Your task to perform on an android device: delete a single message in the gmail app Image 0: 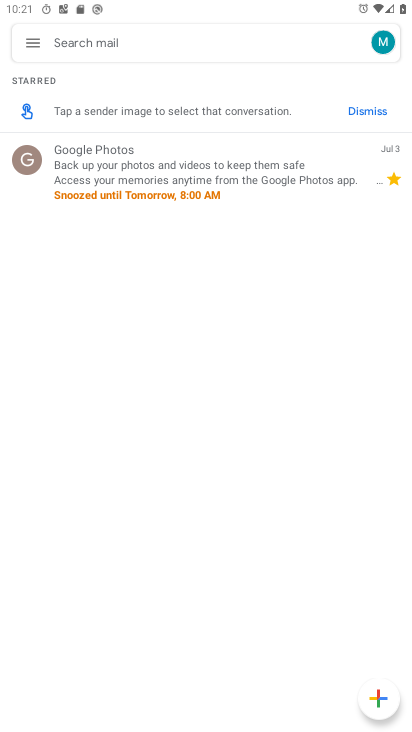
Step 0: press home button
Your task to perform on an android device: delete a single message in the gmail app Image 1: 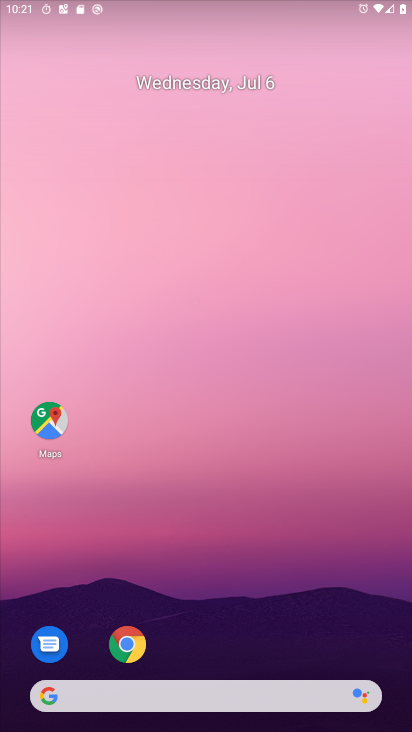
Step 1: drag from (240, 627) to (226, 169)
Your task to perform on an android device: delete a single message in the gmail app Image 2: 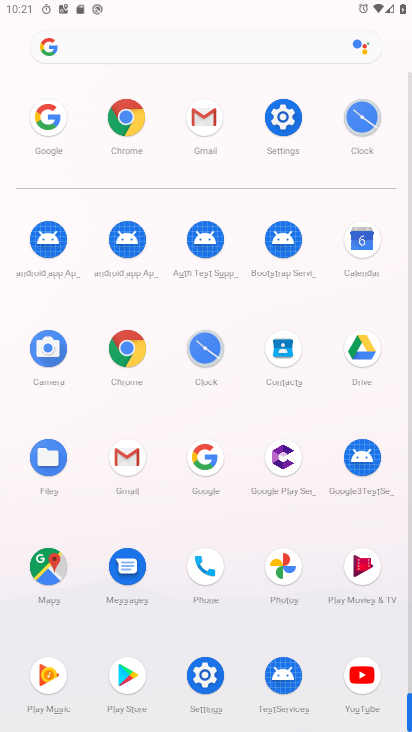
Step 2: click (207, 144)
Your task to perform on an android device: delete a single message in the gmail app Image 3: 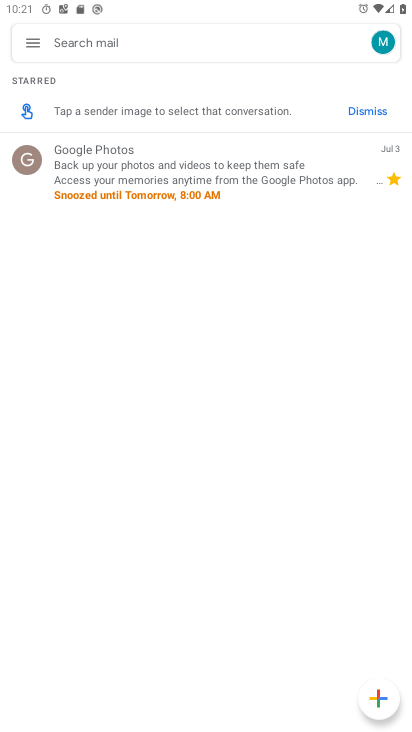
Step 3: click (35, 44)
Your task to perform on an android device: delete a single message in the gmail app Image 4: 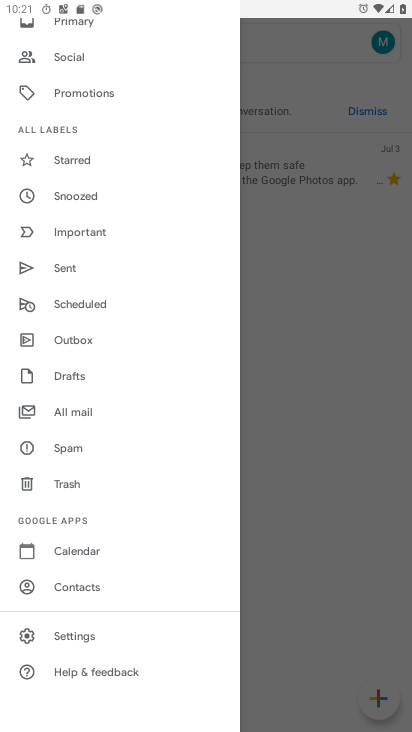
Step 4: drag from (96, 159) to (87, 306)
Your task to perform on an android device: delete a single message in the gmail app Image 5: 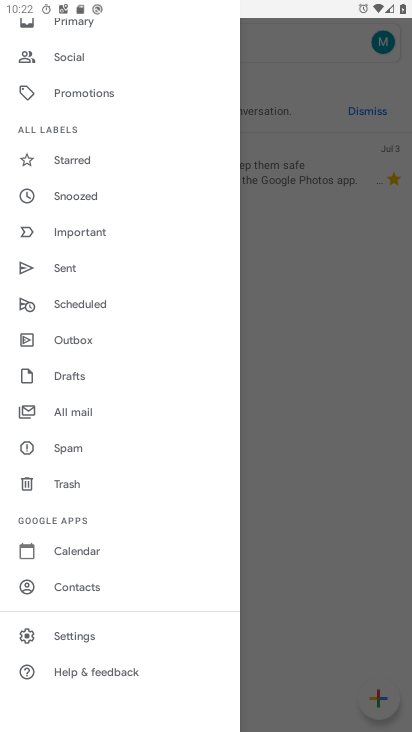
Step 5: drag from (118, 254) to (110, 466)
Your task to perform on an android device: delete a single message in the gmail app Image 6: 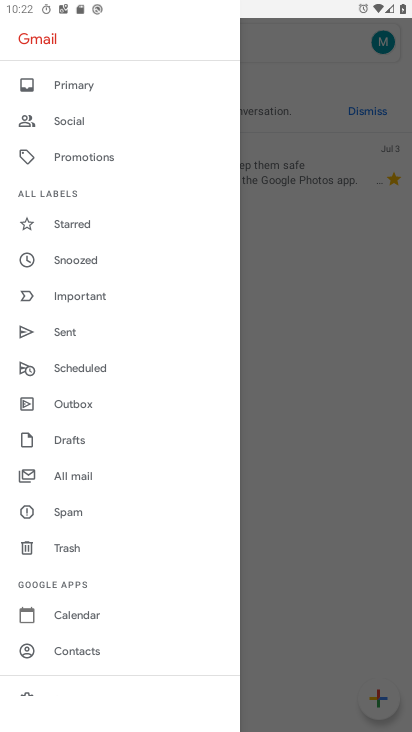
Step 6: drag from (97, 323) to (93, 472)
Your task to perform on an android device: delete a single message in the gmail app Image 7: 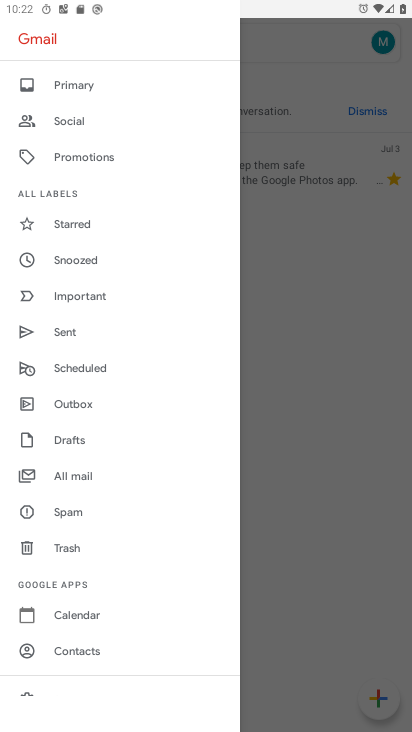
Step 7: click (67, 480)
Your task to perform on an android device: delete a single message in the gmail app Image 8: 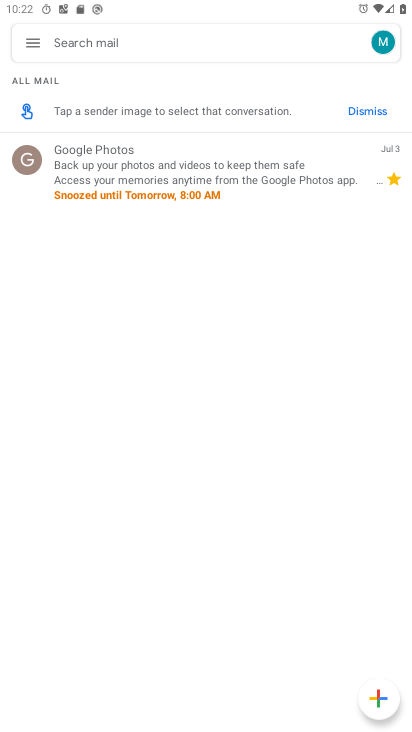
Step 8: click (196, 173)
Your task to perform on an android device: delete a single message in the gmail app Image 9: 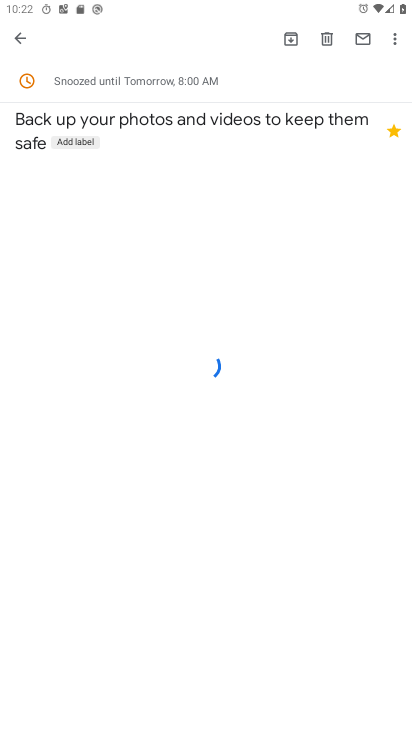
Step 9: click (324, 45)
Your task to perform on an android device: delete a single message in the gmail app Image 10: 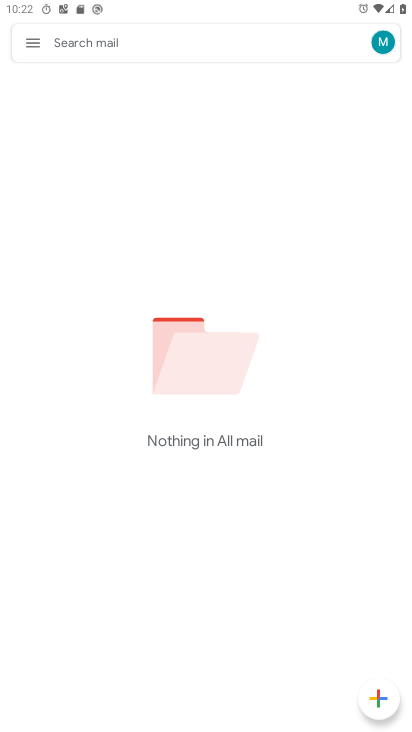
Step 10: task complete